Your task to perform on an android device: change alarm snooze length Image 0: 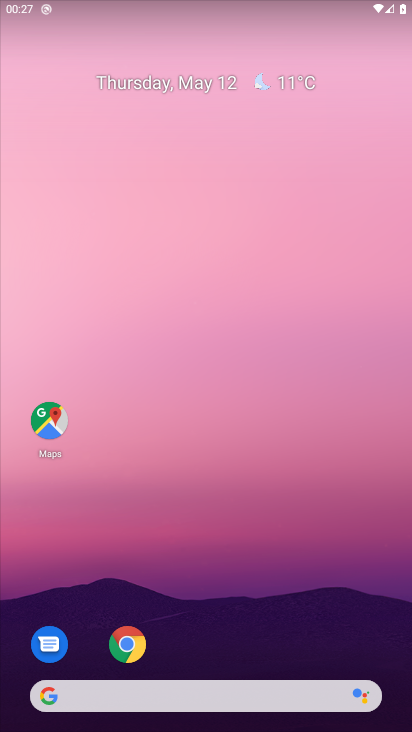
Step 0: drag from (207, 663) to (243, 12)
Your task to perform on an android device: change alarm snooze length Image 1: 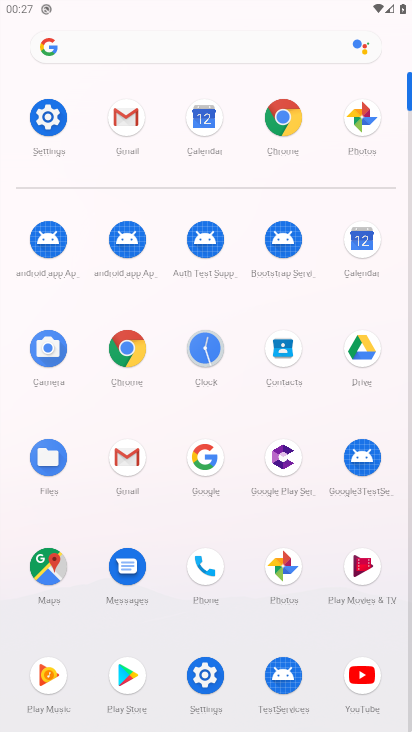
Step 1: click (206, 346)
Your task to perform on an android device: change alarm snooze length Image 2: 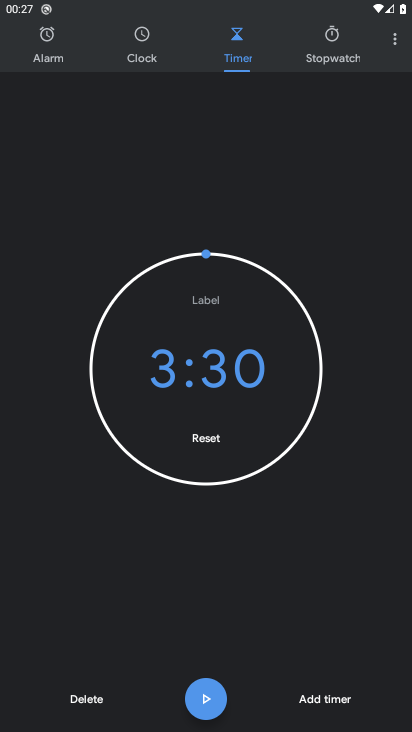
Step 2: click (395, 41)
Your task to perform on an android device: change alarm snooze length Image 3: 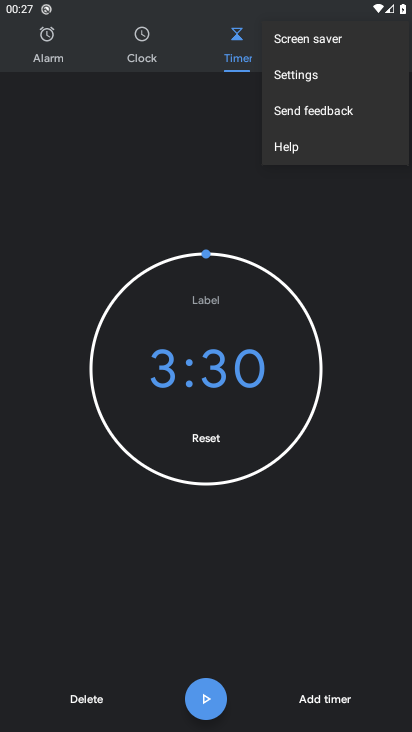
Step 3: click (322, 74)
Your task to perform on an android device: change alarm snooze length Image 4: 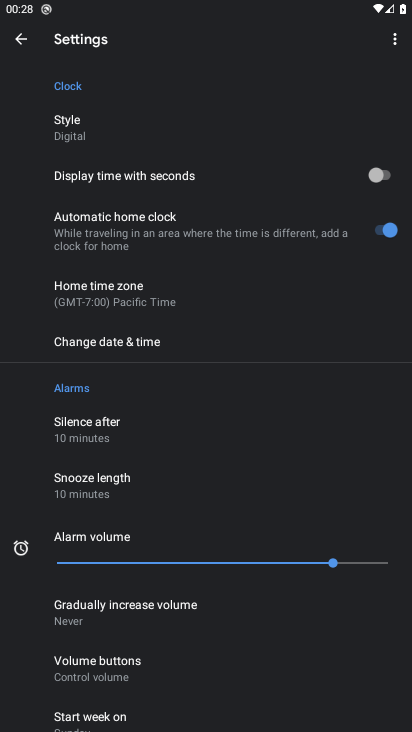
Step 4: click (141, 485)
Your task to perform on an android device: change alarm snooze length Image 5: 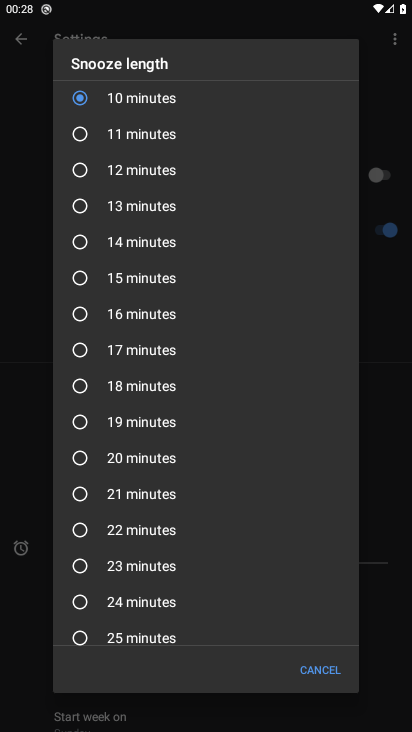
Step 5: drag from (106, 126) to (111, 561)
Your task to perform on an android device: change alarm snooze length Image 6: 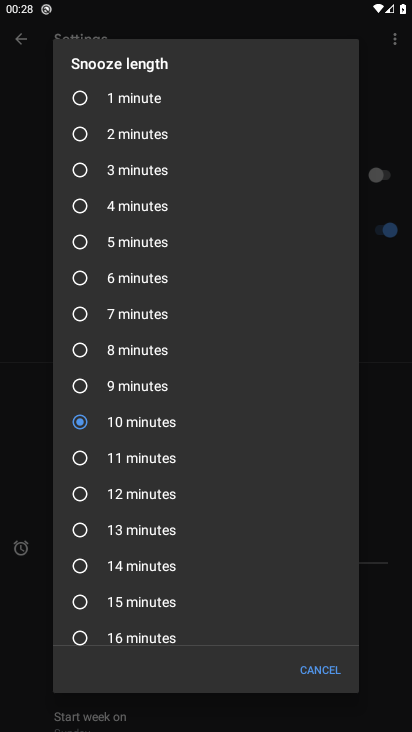
Step 6: click (81, 171)
Your task to perform on an android device: change alarm snooze length Image 7: 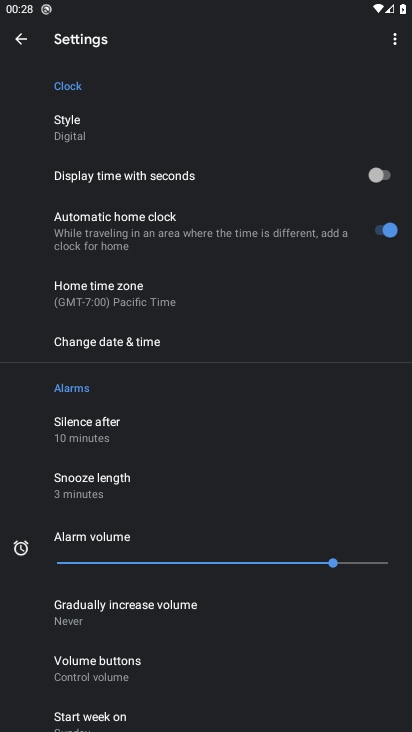
Step 7: task complete